Your task to perform on an android device: remove spam from my inbox in the gmail app Image 0: 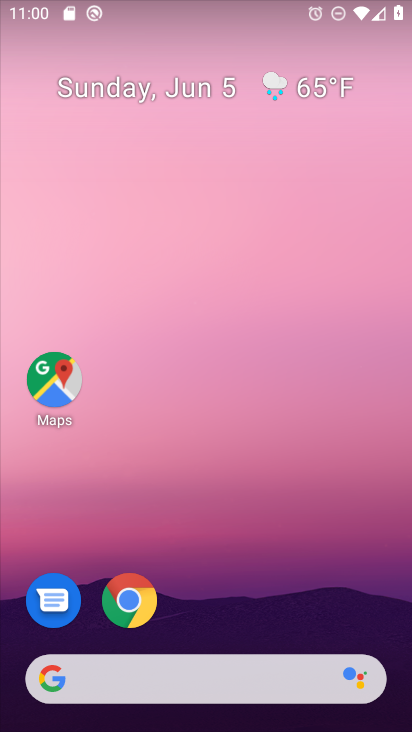
Step 0: drag from (307, 334) to (289, 16)
Your task to perform on an android device: remove spam from my inbox in the gmail app Image 1: 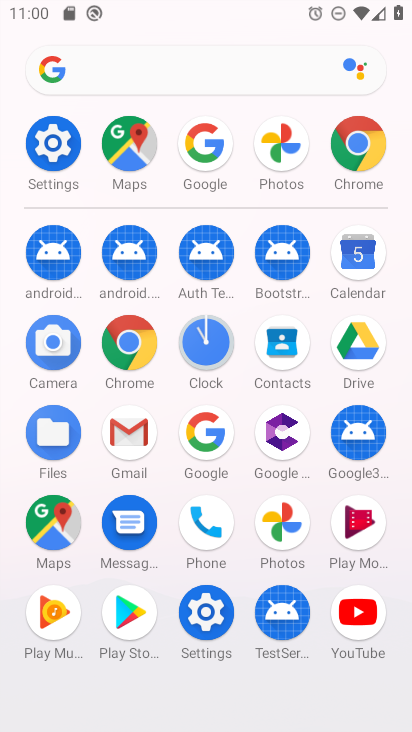
Step 1: click (139, 426)
Your task to perform on an android device: remove spam from my inbox in the gmail app Image 2: 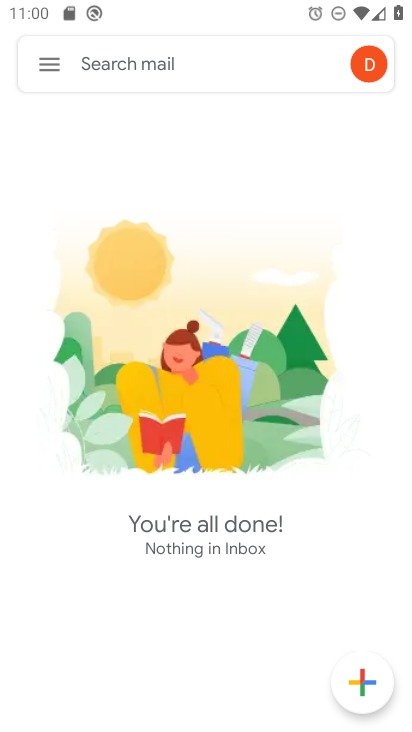
Step 2: click (47, 60)
Your task to perform on an android device: remove spam from my inbox in the gmail app Image 3: 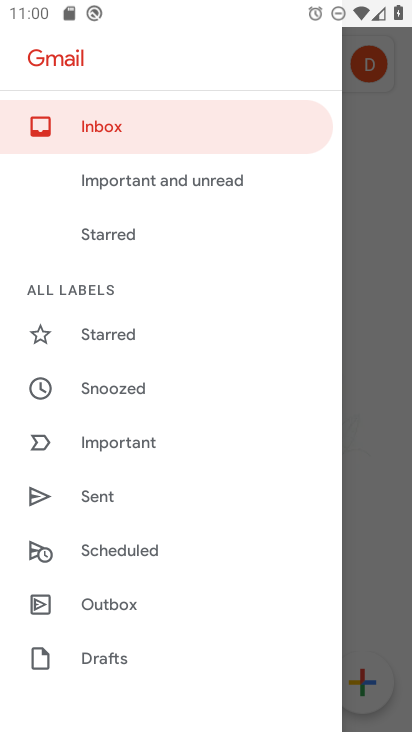
Step 3: drag from (176, 634) to (205, 203)
Your task to perform on an android device: remove spam from my inbox in the gmail app Image 4: 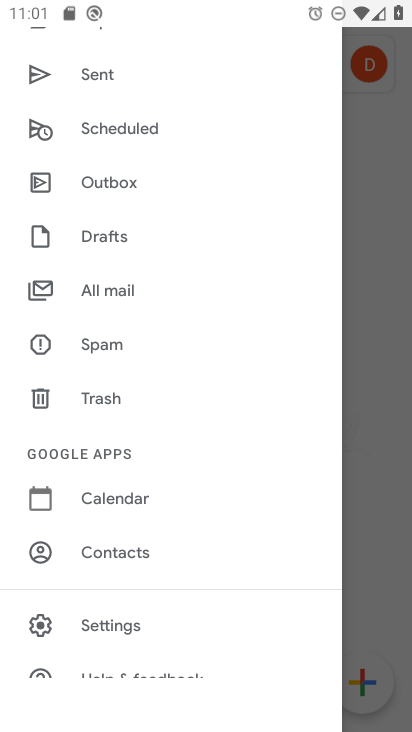
Step 4: click (135, 353)
Your task to perform on an android device: remove spam from my inbox in the gmail app Image 5: 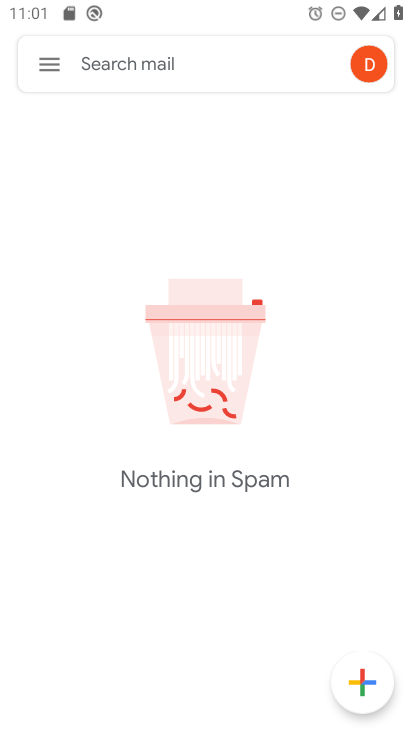
Step 5: task complete